Your task to perform on an android device: Open sound settings Image 0: 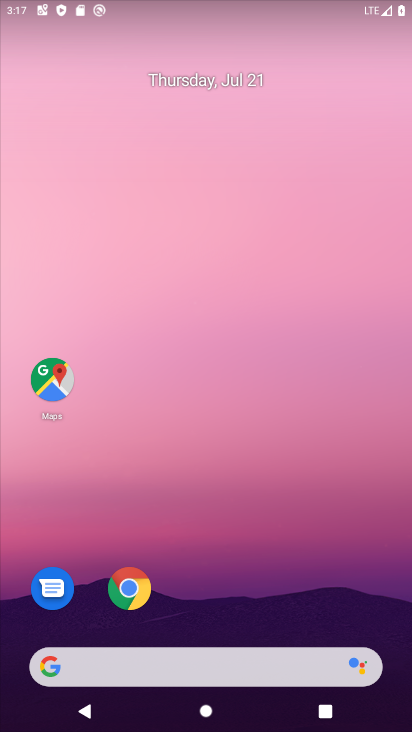
Step 0: drag from (261, 569) to (276, 181)
Your task to perform on an android device: Open sound settings Image 1: 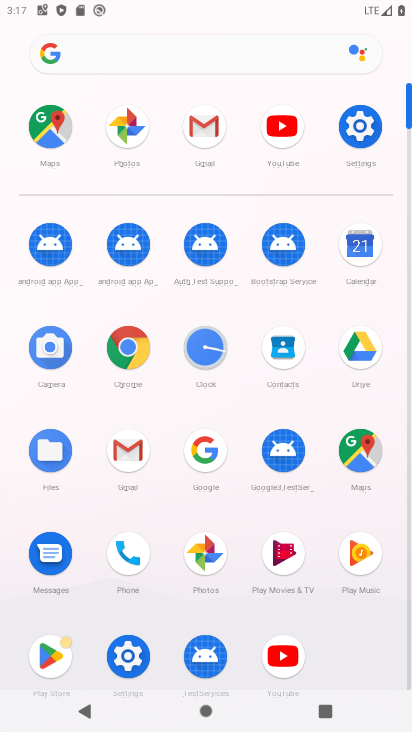
Step 1: click (373, 119)
Your task to perform on an android device: Open sound settings Image 2: 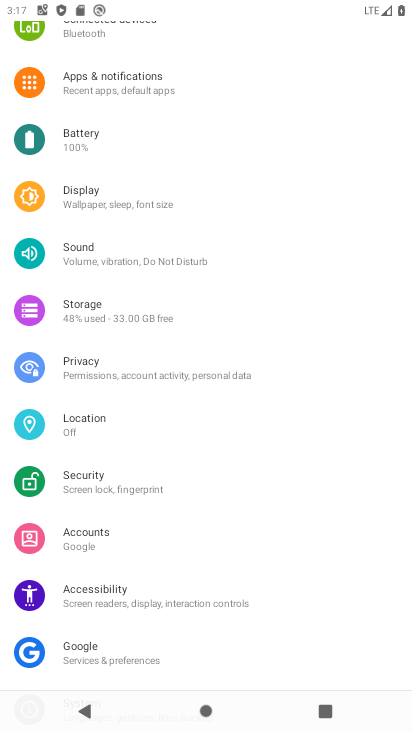
Step 2: click (105, 247)
Your task to perform on an android device: Open sound settings Image 3: 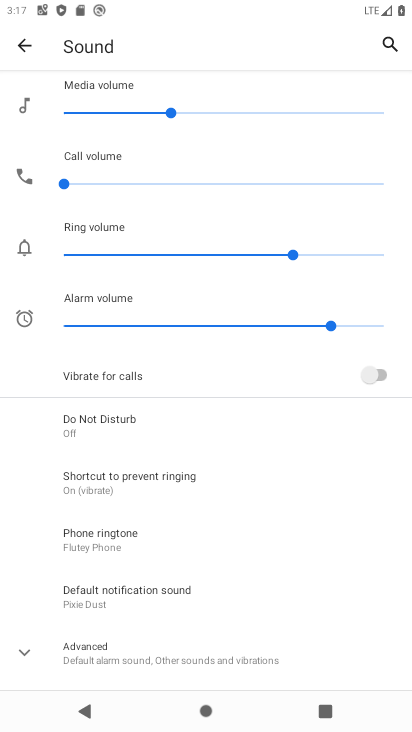
Step 3: task complete